Your task to perform on an android device: Toggle the flashlight Image 0: 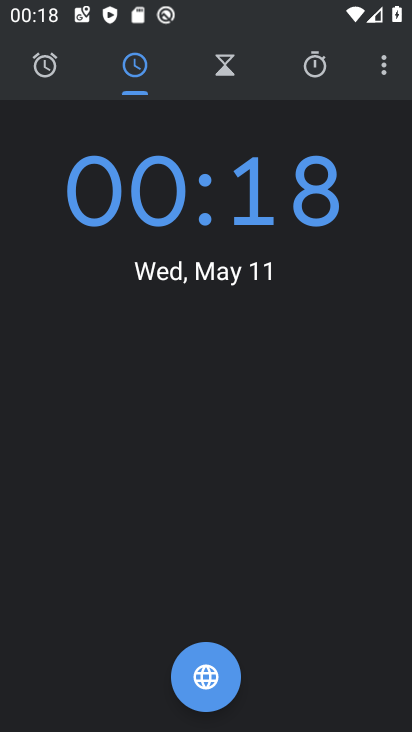
Step 0: press home button
Your task to perform on an android device: Toggle the flashlight Image 1: 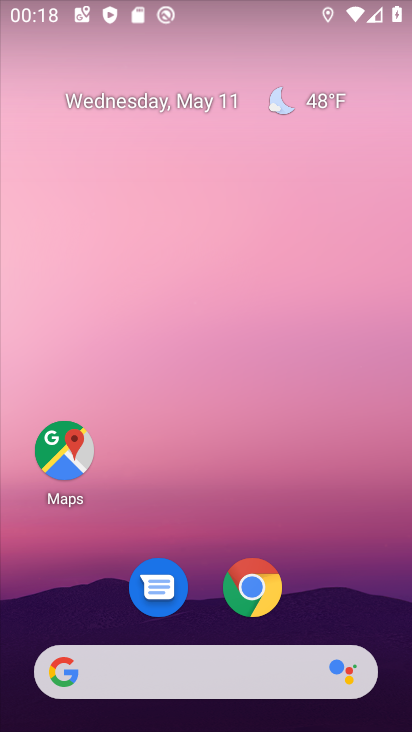
Step 1: drag from (366, 6) to (378, 595)
Your task to perform on an android device: Toggle the flashlight Image 2: 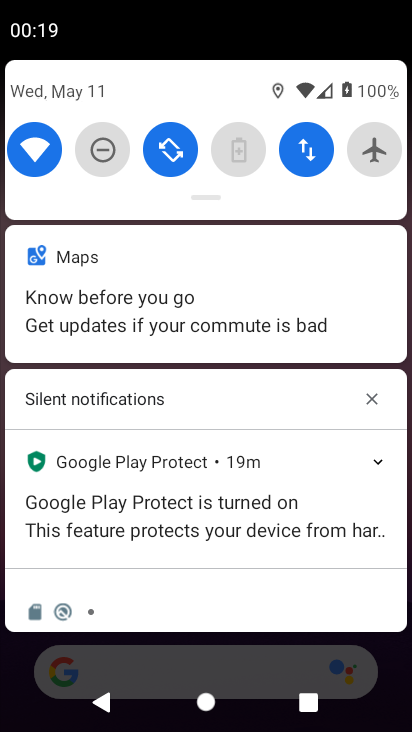
Step 2: drag from (181, 187) to (230, 548)
Your task to perform on an android device: Toggle the flashlight Image 3: 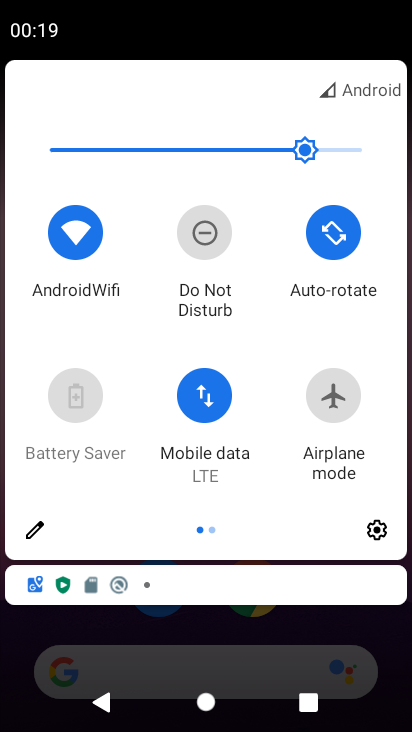
Step 3: click (36, 534)
Your task to perform on an android device: Toggle the flashlight Image 4: 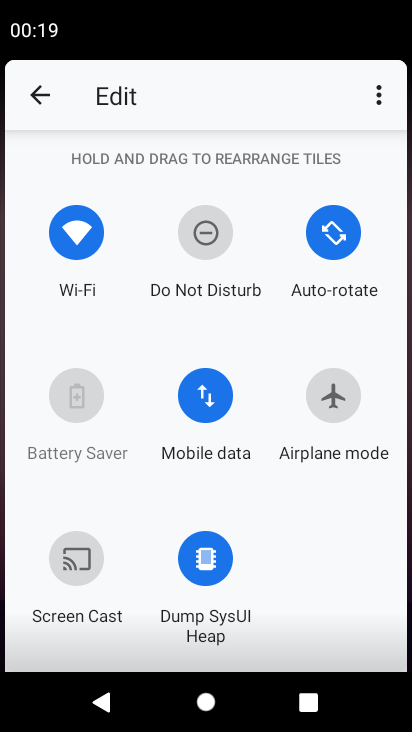
Step 4: task complete